Your task to perform on an android device: Go to Yahoo.com Image 0: 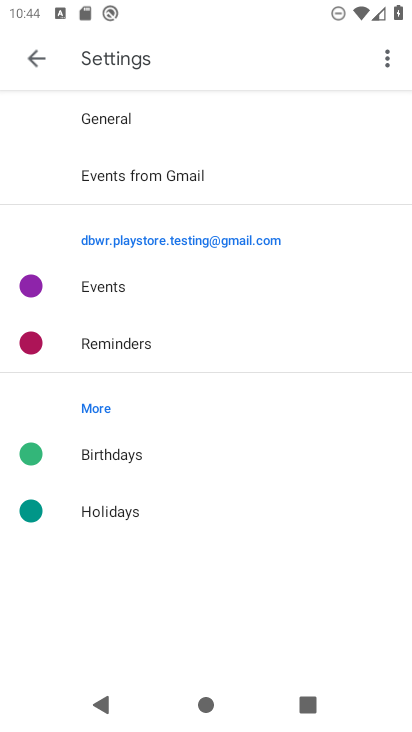
Step 0: press home button
Your task to perform on an android device: Go to Yahoo.com Image 1: 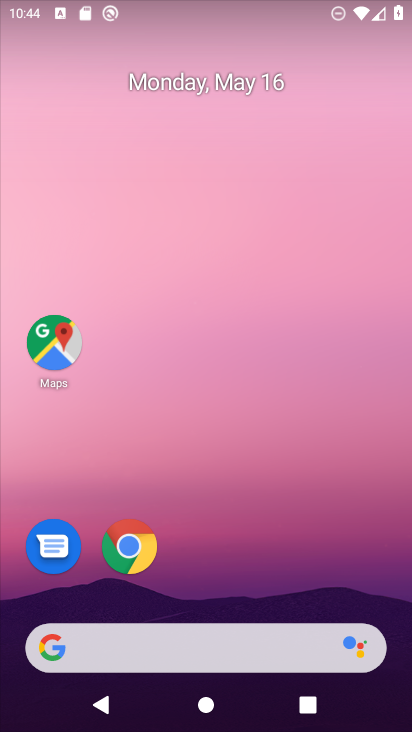
Step 1: click (131, 548)
Your task to perform on an android device: Go to Yahoo.com Image 2: 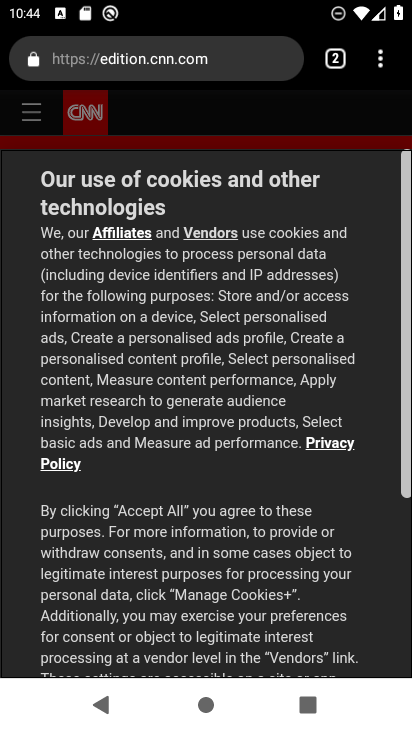
Step 2: click (334, 62)
Your task to perform on an android device: Go to Yahoo.com Image 3: 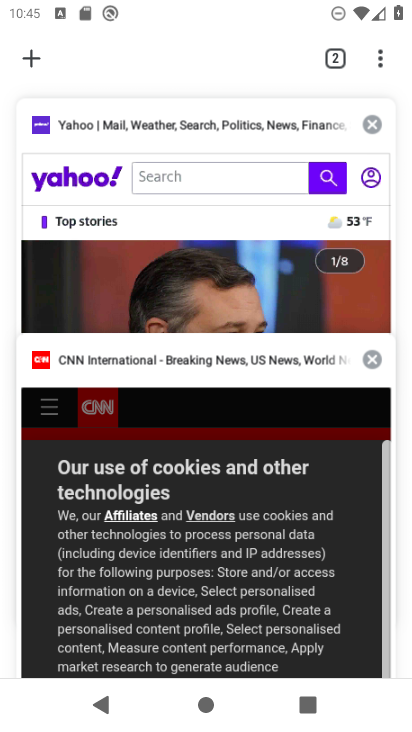
Step 3: click (29, 54)
Your task to perform on an android device: Go to Yahoo.com Image 4: 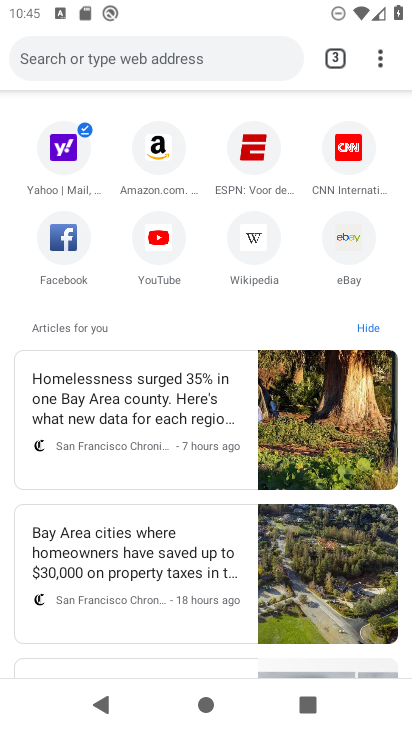
Step 4: click (78, 156)
Your task to perform on an android device: Go to Yahoo.com Image 5: 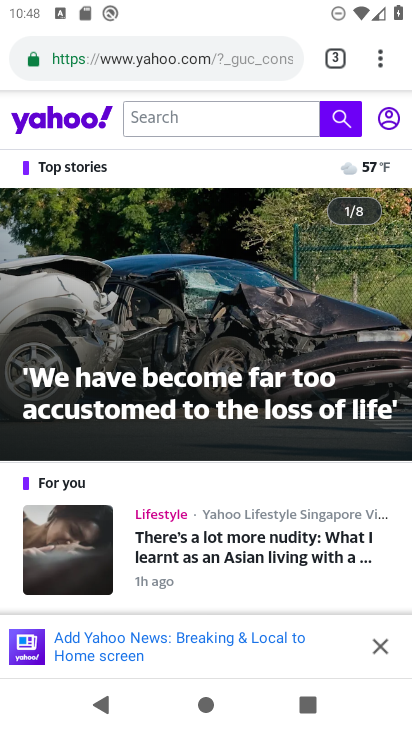
Step 5: task complete